Your task to perform on an android device: Do I have any events today? Image 0: 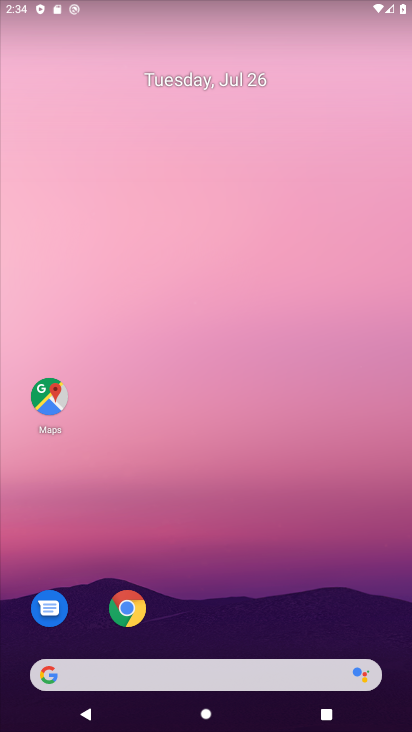
Step 0: drag from (204, 537) to (198, 58)
Your task to perform on an android device: Do I have any events today? Image 1: 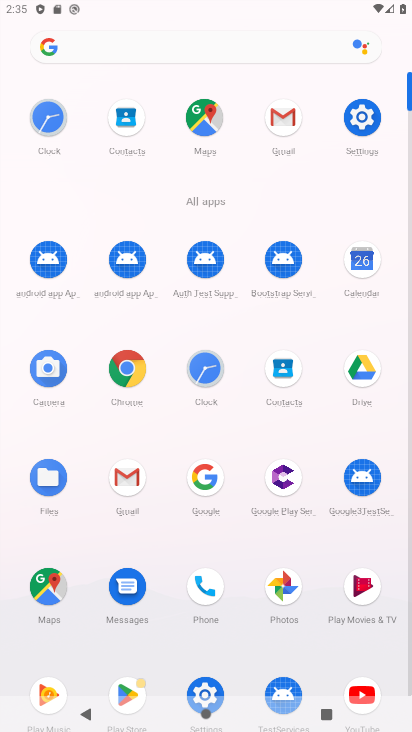
Step 1: click (367, 268)
Your task to perform on an android device: Do I have any events today? Image 2: 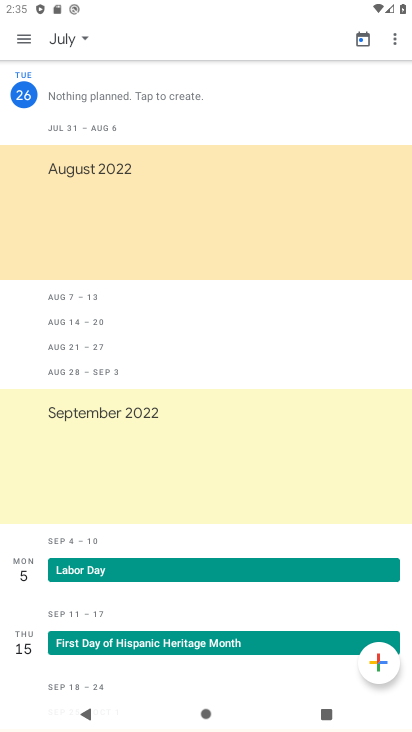
Step 2: task complete